Your task to perform on an android device: Open location settings Image 0: 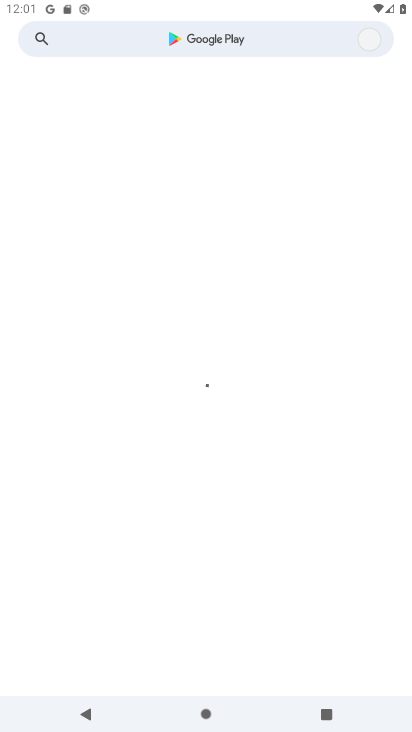
Step 0: press home button
Your task to perform on an android device: Open location settings Image 1: 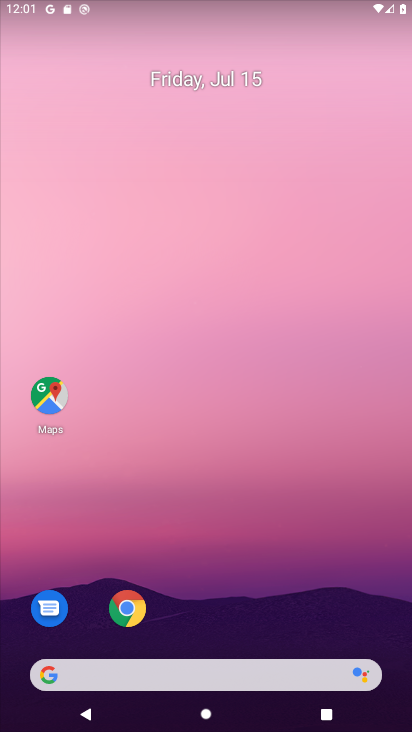
Step 1: drag from (220, 289) to (188, 173)
Your task to perform on an android device: Open location settings Image 2: 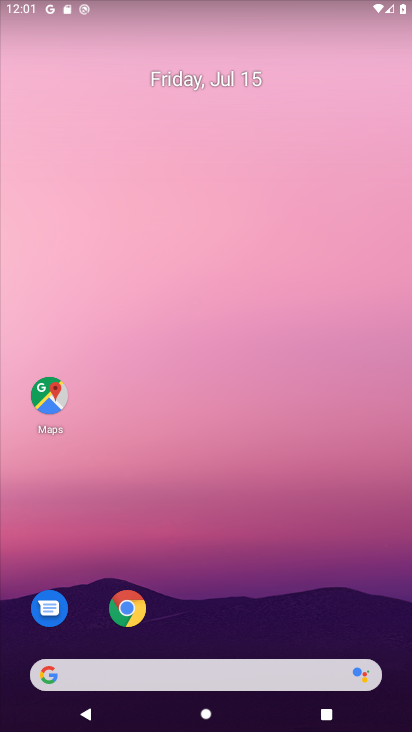
Step 2: drag from (210, 535) to (158, 70)
Your task to perform on an android device: Open location settings Image 3: 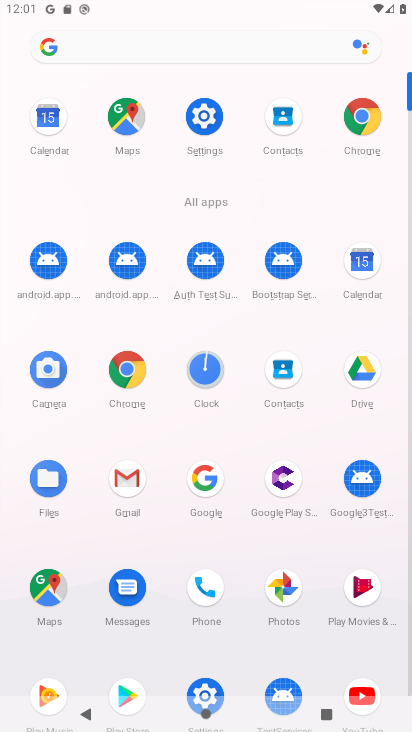
Step 3: click (203, 111)
Your task to perform on an android device: Open location settings Image 4: 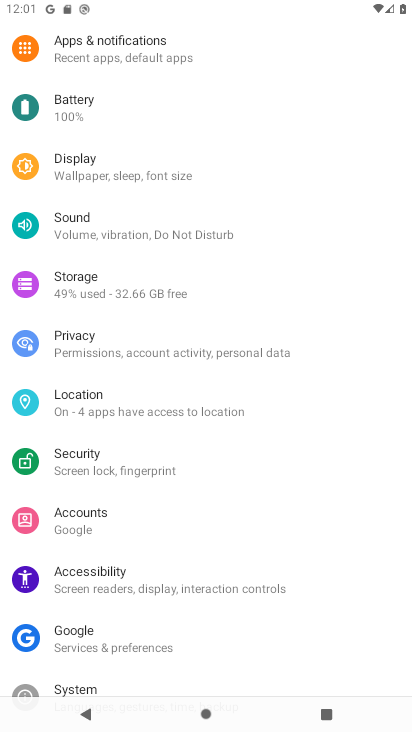
Step 4: click (83, 399)
Your task to perform on an android device: Open location settings Image 5: 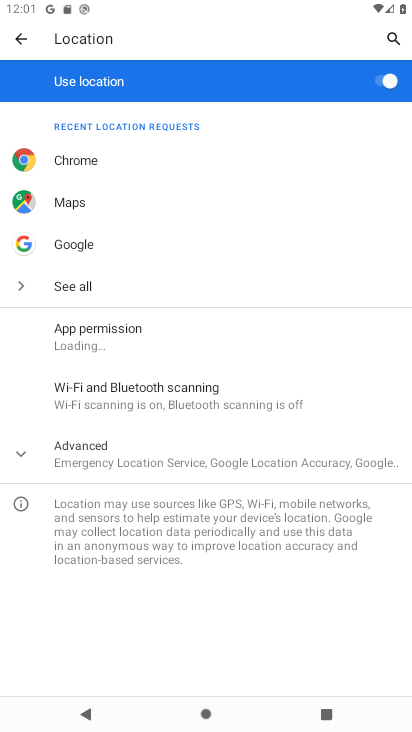
Step 5: task complete